Your task to perform on an android device: install app "Google Keep" Image 0: 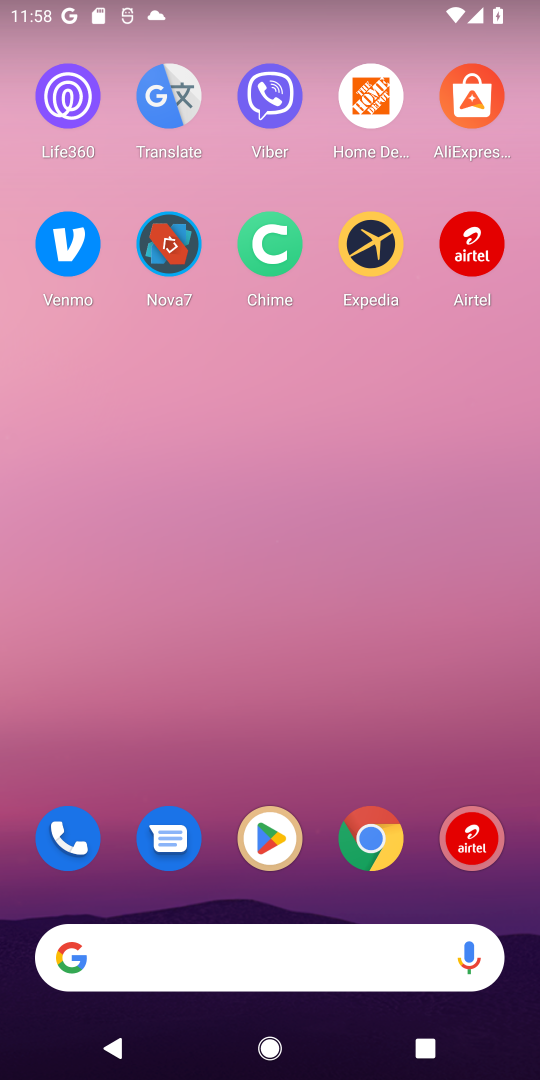
Step 0: click (273, 820)
Your task to perform on an android device: install app "Google Keep" Image 1: 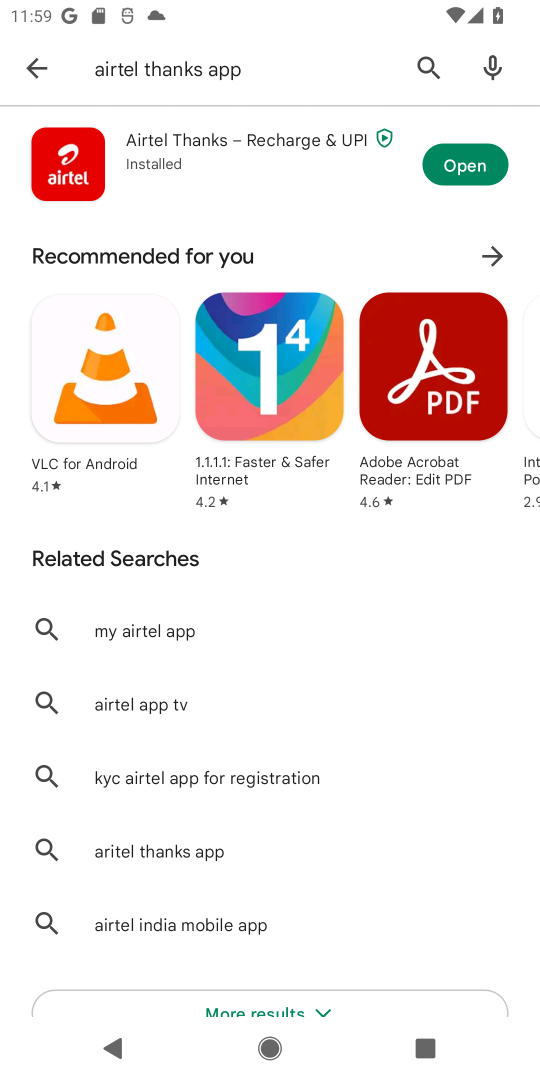
Step 1: click (421, 59)
Your task to perform on an android device: install app "Google Keep" Image 2: 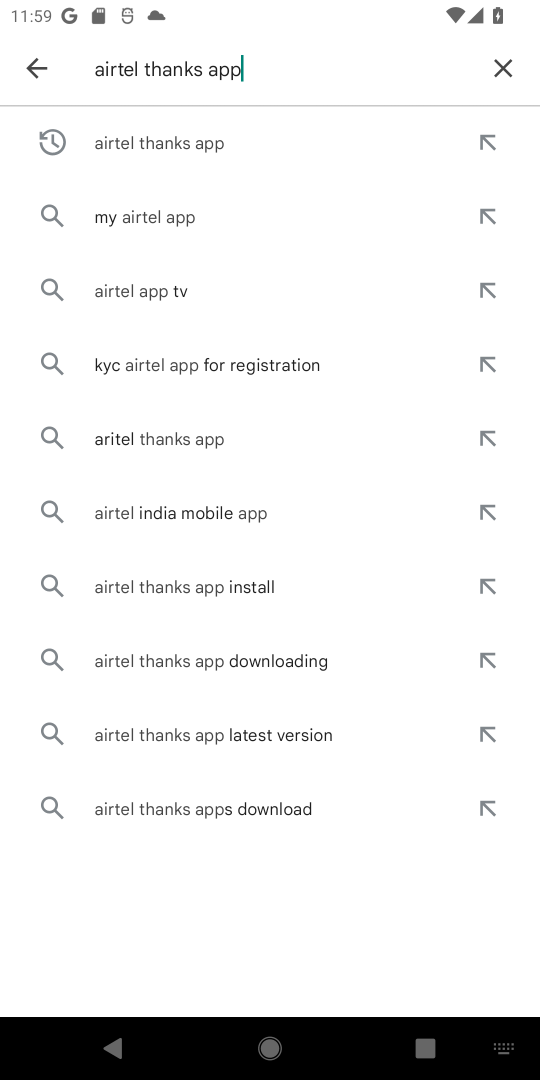
Step 2: click (487, 63)
Your task to perform on an android device: install app "Google Keep" Image 3: 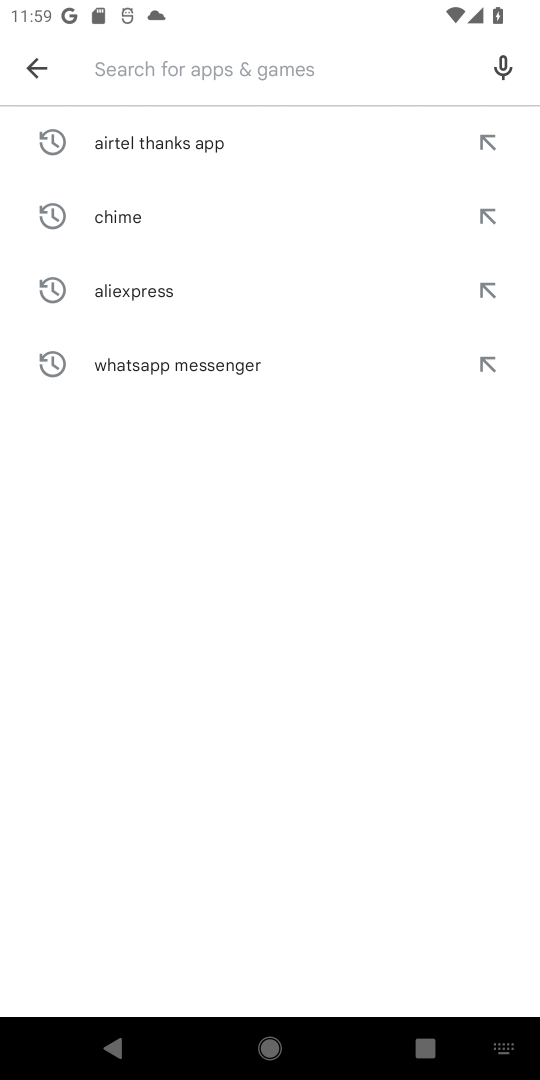
Step 3: type "Google Keep"
Your task to perform on an android device: install app "Google Keep" Image 4: 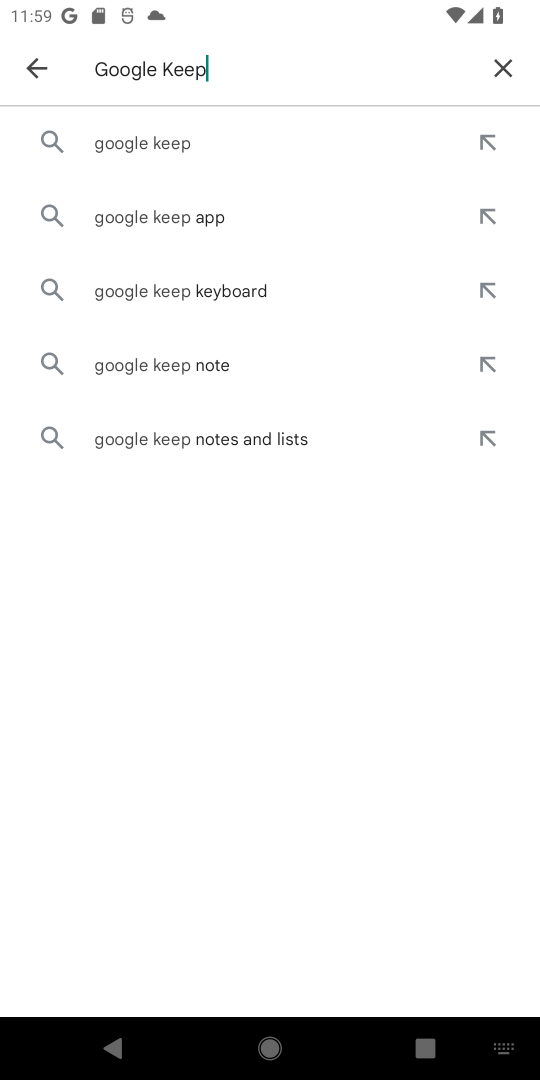
Step 4: click (215, 141)
Your task to perform on an android device: install app "Google Keep" Image 5: 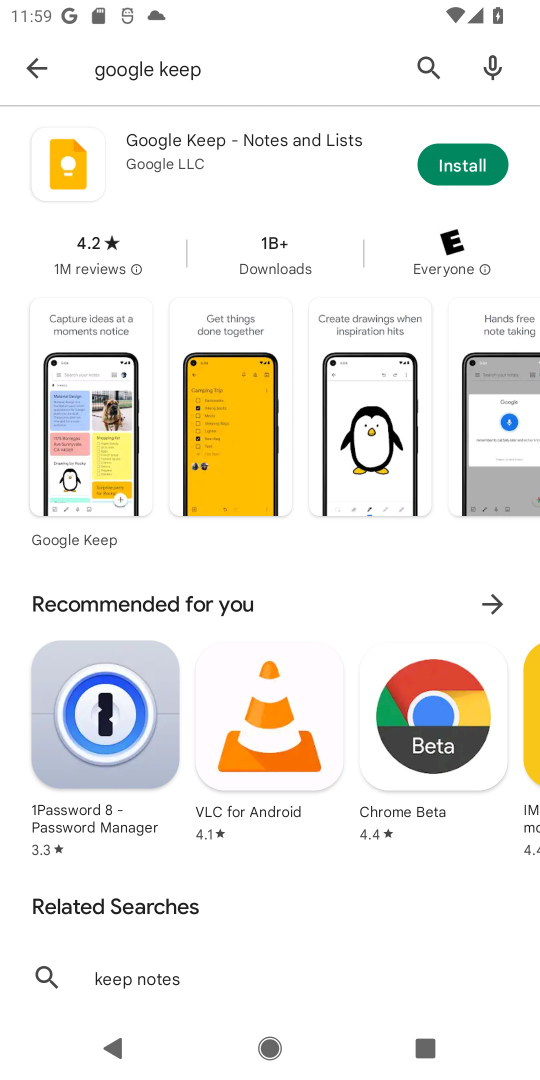
Step 5: click (454, 156)
Your task to perform on an android device: install app "Google Keep" Image 6: 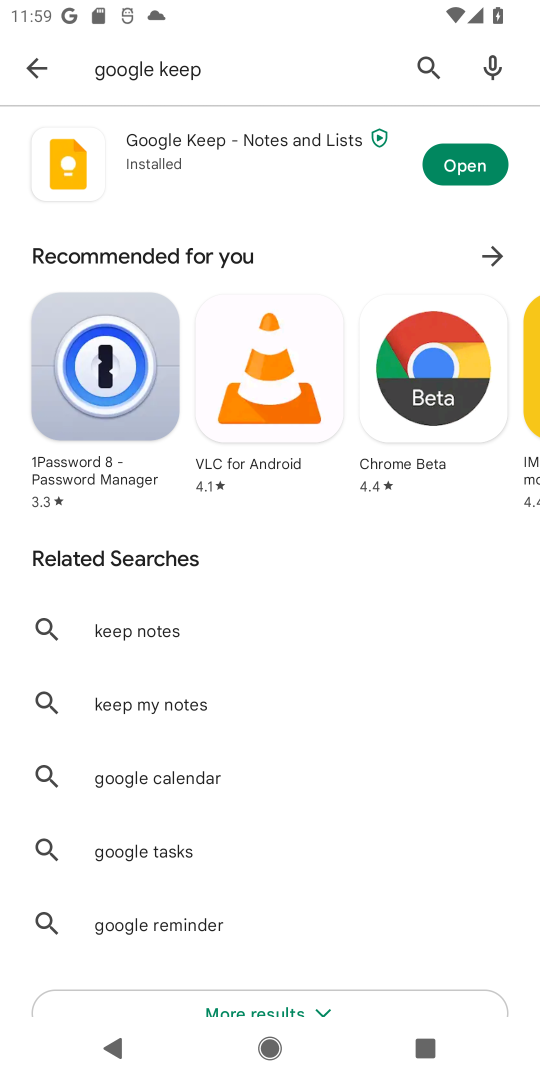
Step 6: task complete